Your task to perform on an android device: change notification settings in the gmail app Image 0: 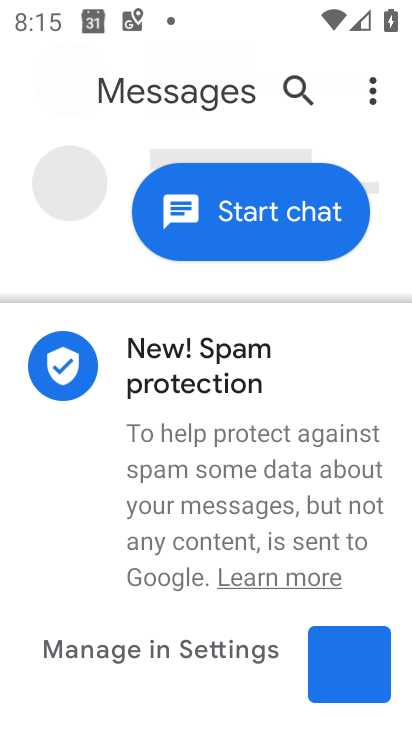
Step 0: press home button
Your task to perform on an android device: change notification settings in the gmail app Image 1: 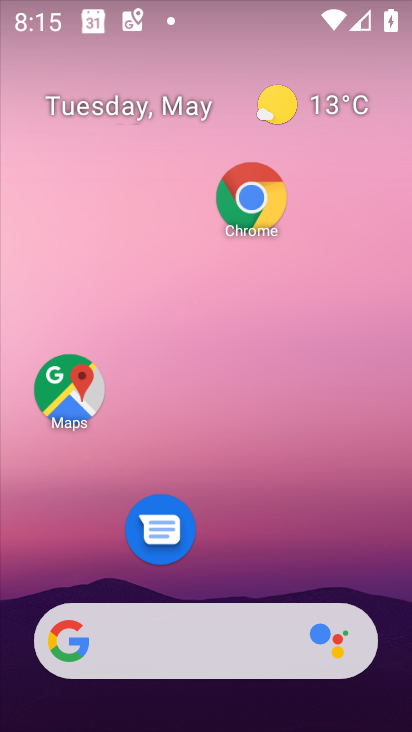
Step 1: drag from (311, 566) to (270, 7)
Your task to perform on an android device: change notification settings in the gmail app Image 2: 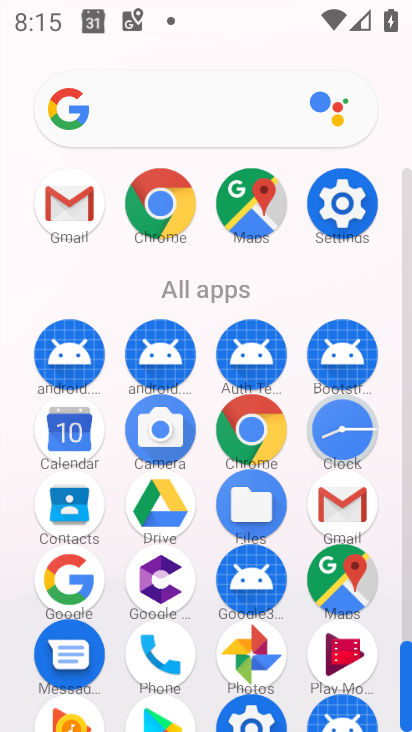
Step 2: click (333, 185)
Your task to perform on an android device: change notification settings in the gmail app Image 3: 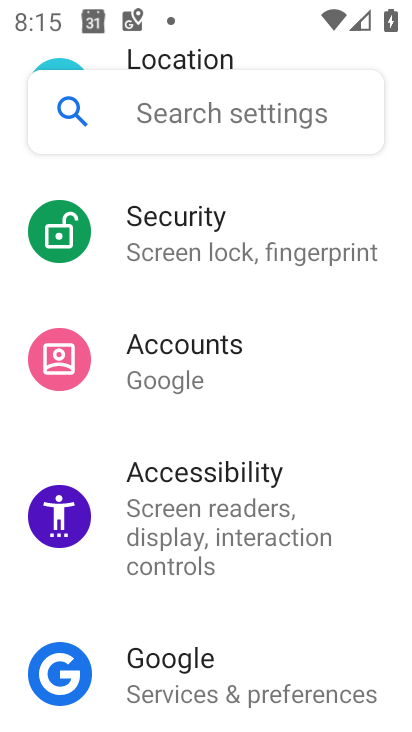
Step 3: press home button
Your task to perform on an android device: change notification settings in the gmail app Image 4: 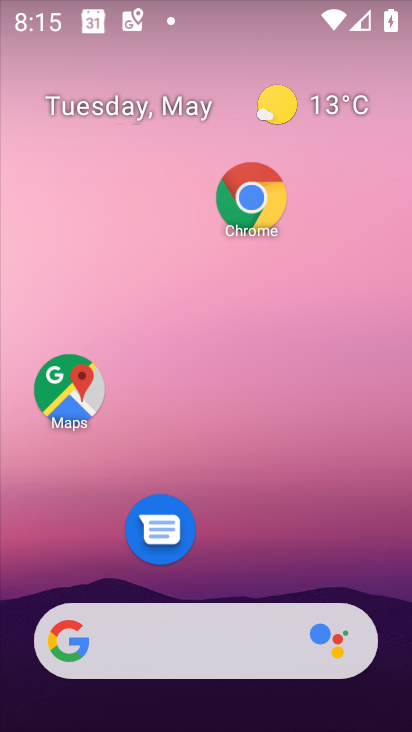
Step 4: drag from (271, 578) to (268, 144)
Your task to perform on an android device: change notification settings in the gmail app Image 5: 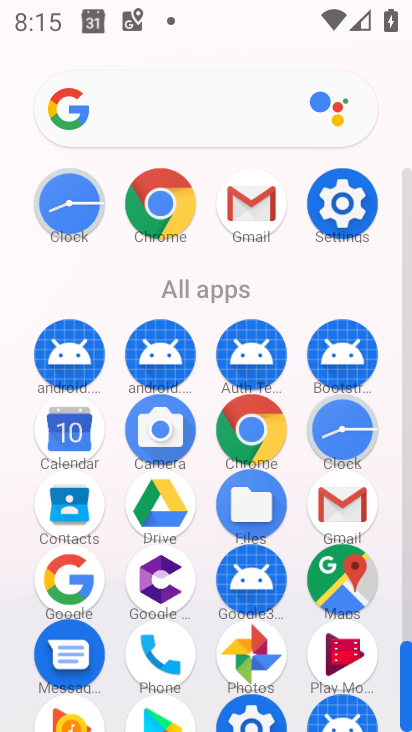
Step 5: click (255, 178)
Your task to perform on an android device: change notification settings in the gmail app Image 6: 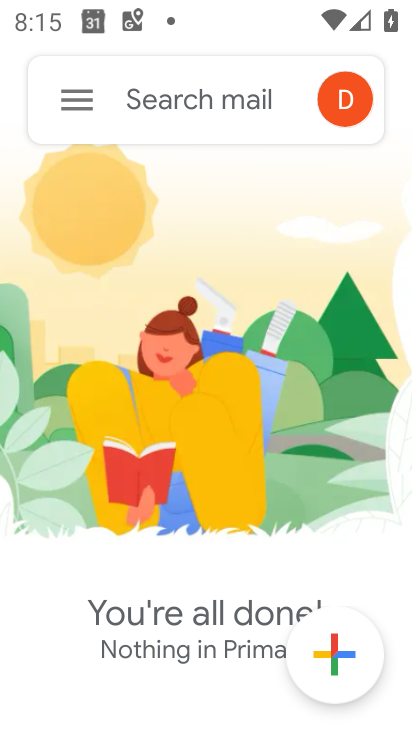
Step 6: click (93, 103)
Your task to perform on an android device: change notification settings in the gmail app Image 7: 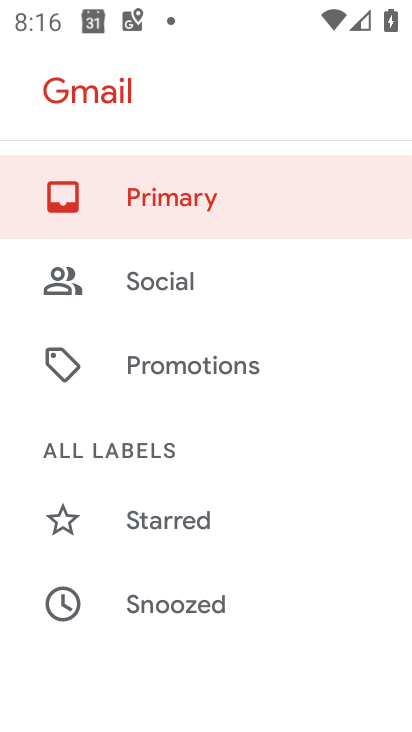
Step 7: drag from (162, 599) to (153, 177)
Your task to perform on an android device: change notification settings in the gmail app Image 8: 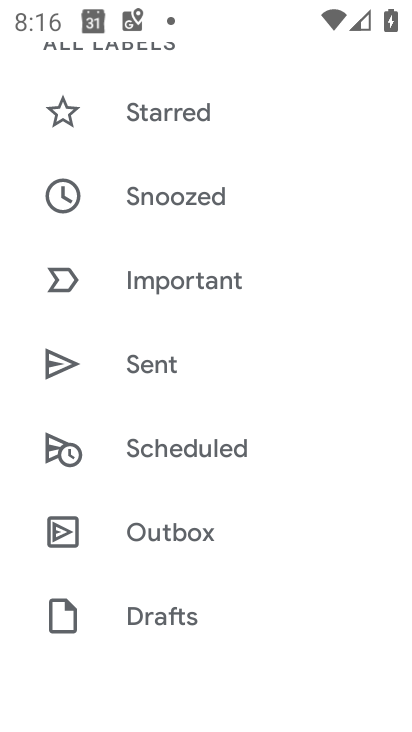
Step 8: drag from (169, 596) to (171, 257)
Your task to perform on an android device: change notification settings in the gmail app Image 9: 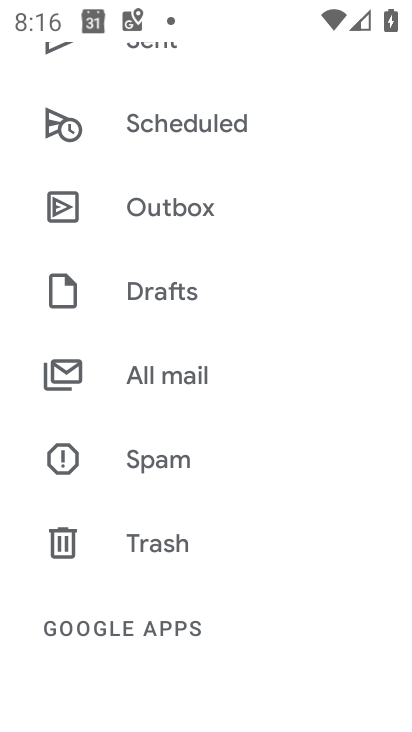
Step 9: drag from (220, 608) to (225, 369)
Your task to perform on an android device: change notification settings in the gmail app Image 10: 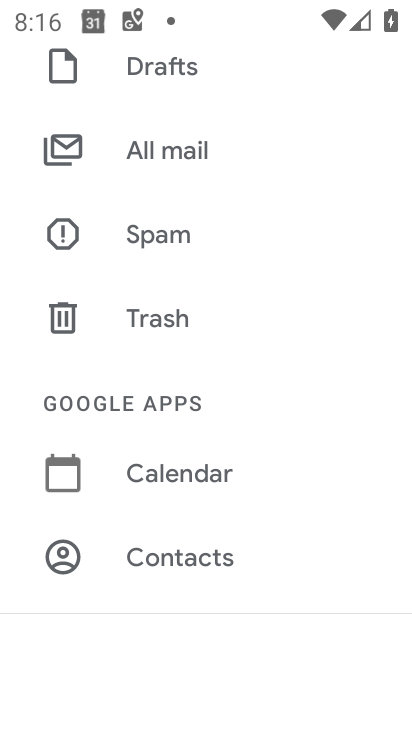
Step 10: drag from (204, 535) to (203, 272)
Your task to perform on an android device: change notification settings in the gmail app Image 11: 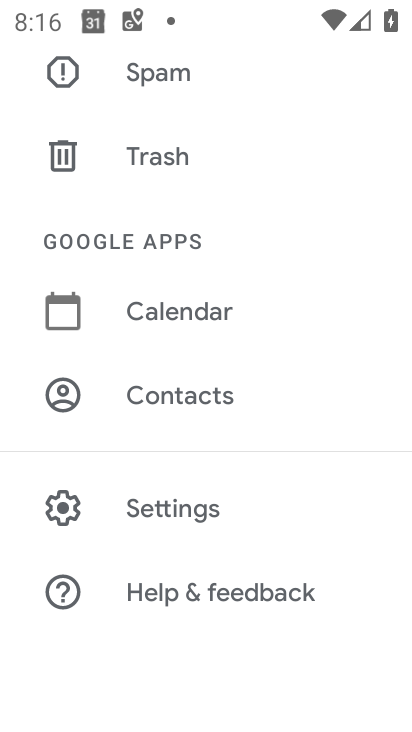
Step 11: click (239, 518)
Your task to perform on an android device: change notification settings in the gmail app Image 12: 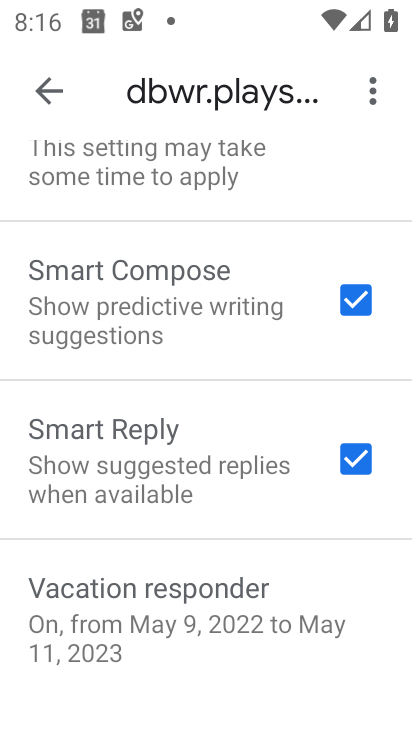
Step 12: drag from (180, 552) to (227, 247)
Your task to perform on an android device: change notification settings in the gmail app Image 13: 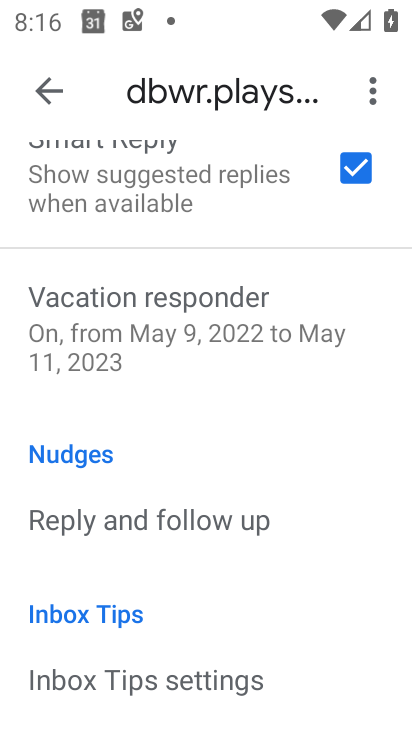
Step 13: drag from (223, 264) to (259, 481)
Your task to perform on an android device: change notification settings in the gmail app Image 14: 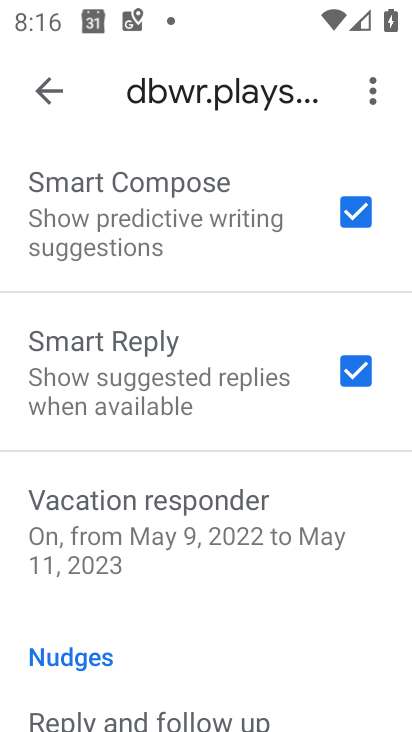
Step 14: drag from (210, 249) to (222, 460)
Your task to perform on an android device: change notification settings in the gmail app Image 15: 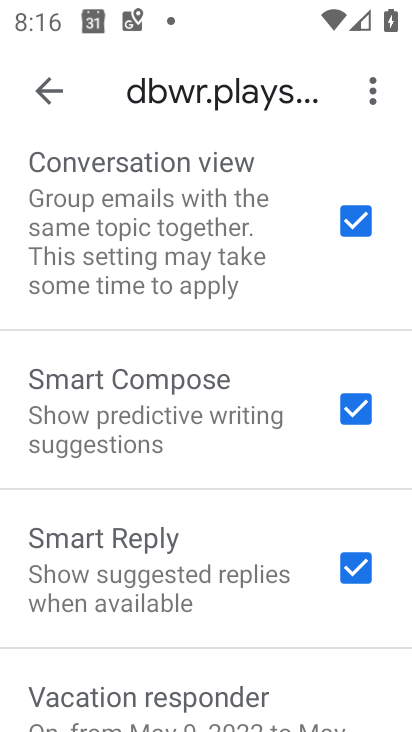
Step 15: drag from (226, 265) to (277, 725)
Your task to perform on an android device: change notification settings in the gmail app Image 16: 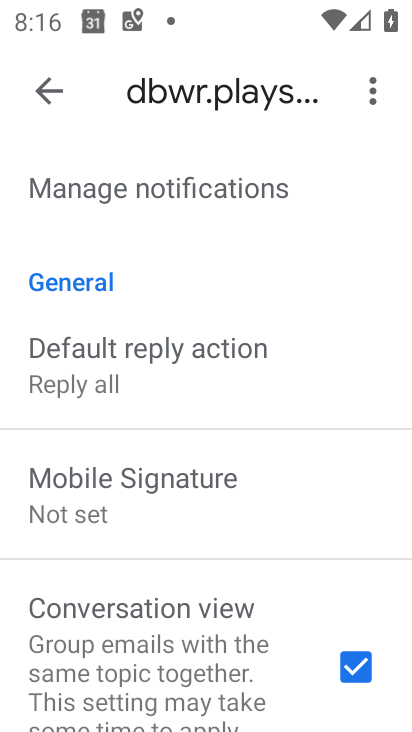
Step 16: click (188, 164)
Your task to perform on an android device: change notification settings in the gmail app Image 17: 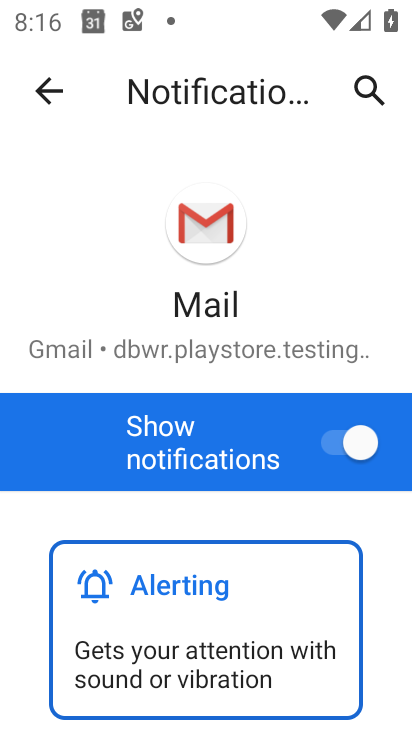
Step 17: task complete